Your task to perform on an android device: Search for jbl charge 4 on target, select the first entry, add it to the cart, then select checkout. Image 0: 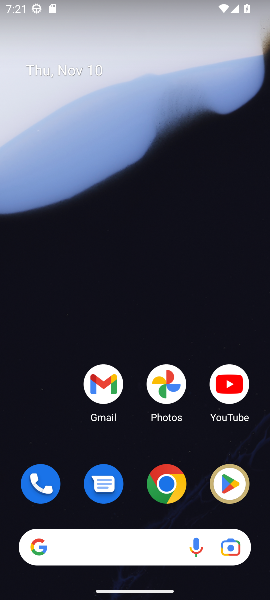
Step 0: click (165, 493)
Your task to perform on an android device: Search for jbl charge 4 on target, select the first entry, add it to the cart, then select checkout. Image 1: 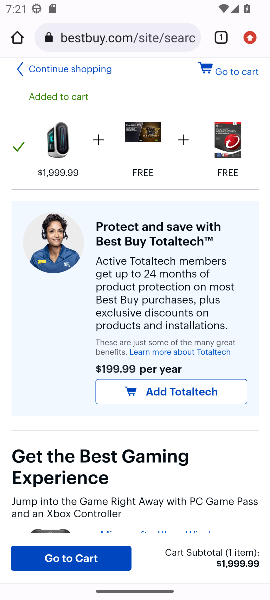
Step 1: click (124, 33)
Your task to perform on an android device: Search for jbl charge 4 on target, select the first entry, add it to the cart, then select checkout. Image 2: 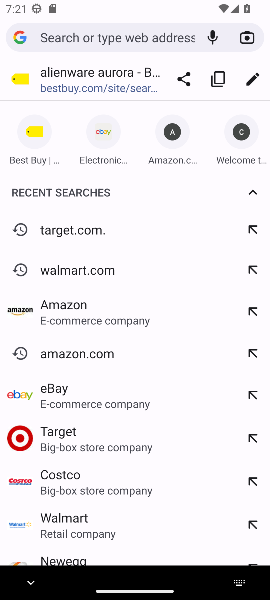
Step 2: click (72, 228)
Your task to perform on an android device: Search for jbl charge 4 on target, select the first entry, add it to the cart, then select checkout. Image 3: 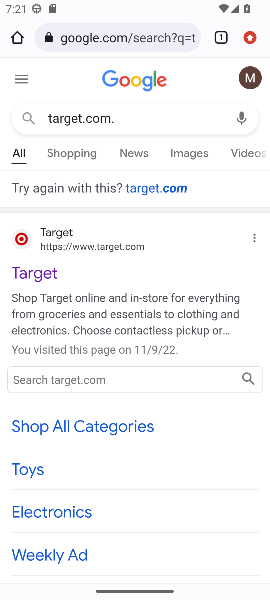
Step 3: click (51, 255)
Your task to perform on an android device: Search for jbl charge 4 on target, select the first entry, add it to the cart, then select checkout. Image 4: 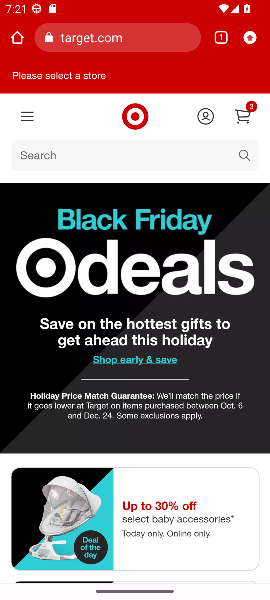
Step 4: click (241, 160)
Your task to perform on an android device: Search for jbl charge 4 on target, select the first entry, add it to the cart, then select checkout. Image 5: 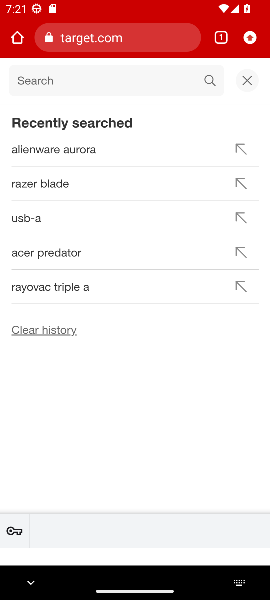
Step 5: type "jbl charge 4"
Your task to perform on an android device: Search for jbl charge 4 on target, select the first entry, add it to the cart, then select checkout. Image 6: 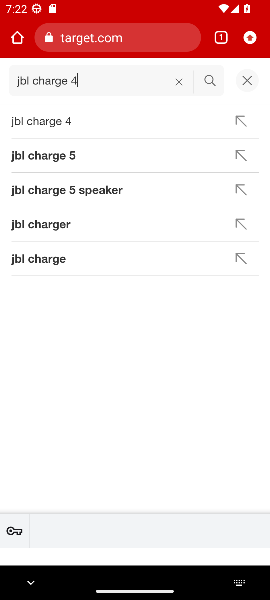
Step 6: click (26, 122)
Your task to perform on an android device: Search for jbl charge 4 on target, select the first entry, add it to the cart, then select checkout. Image 7: 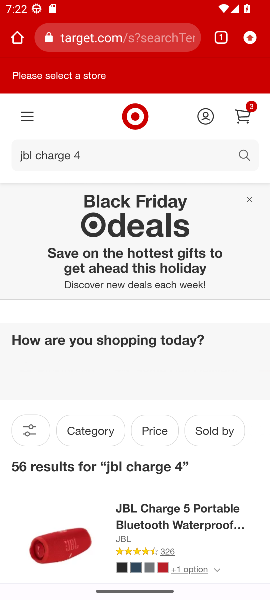
Step 7: task complete